Your task to perform on an android device: delete browsing data in the chrome app Image 0: 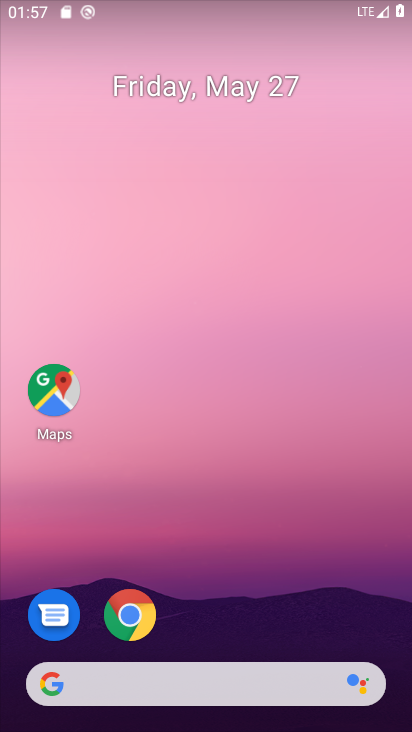
Step 0: drag from (384, 641) to (374, 272)
Your task to perform on an android device: delete browsing data in the chrome app Image 1: 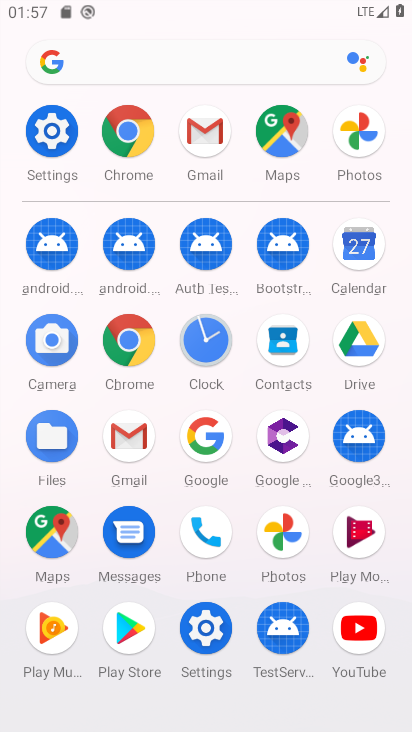
Step 1: click (132, 361)
Your task to perform on an android device: delete browsing data in the chrome app Image 2: 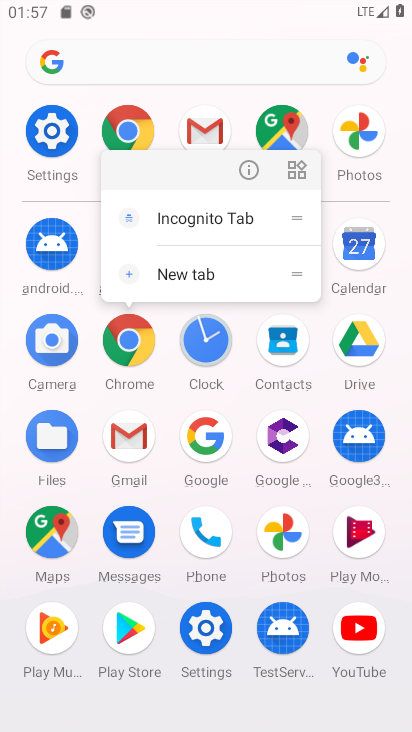
Step 2: click (132, 361)
Your task to perform on an android device: delete browsing data in the chrome app Image 3: 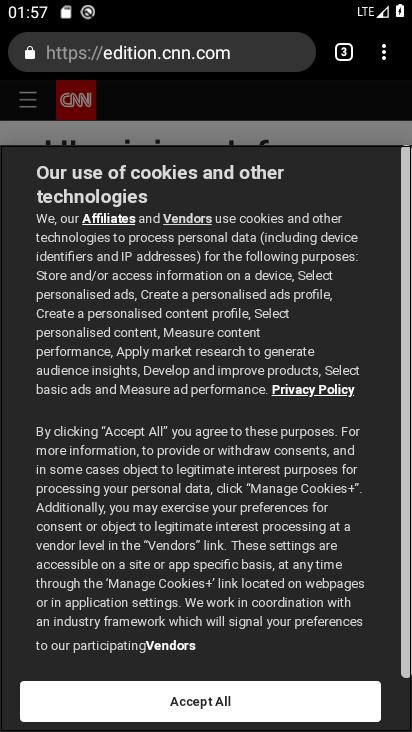
Step 3: click (384, 61)
Your task to perform on an android device: delete browsing data in the chrome app Image 4: 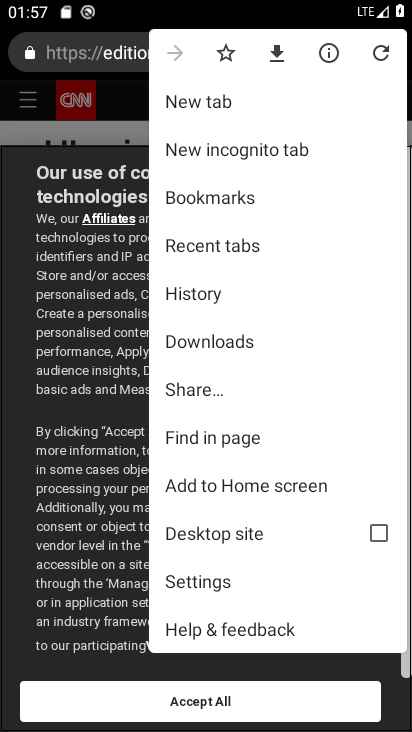
Step 4: click (251, 579)
Your task to perform on an android device: delete browsing data in the chrome app Image 5: 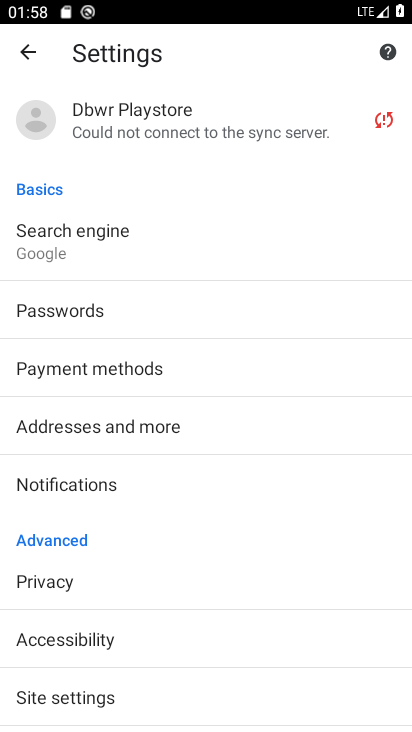
Step 5: drag from (250, 490) to (256, 411)
Your task to perform on an android device: delete browsing data in the chrome app Image 6: 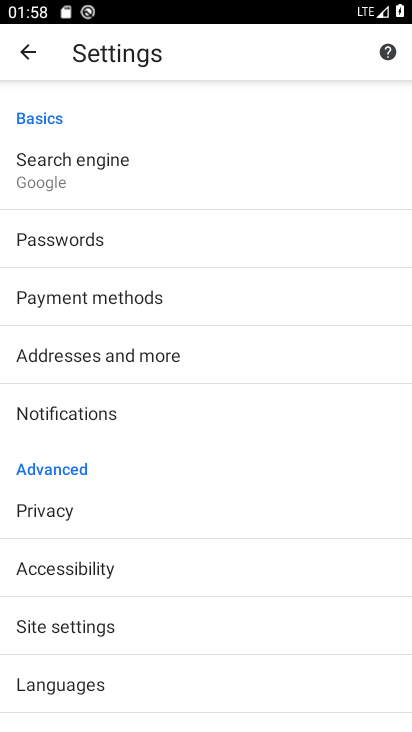
Step 6: drag from (270, 510) to (282, 387)
Your task to perform on an android device: delete browsing data in the chrome app Image 7: 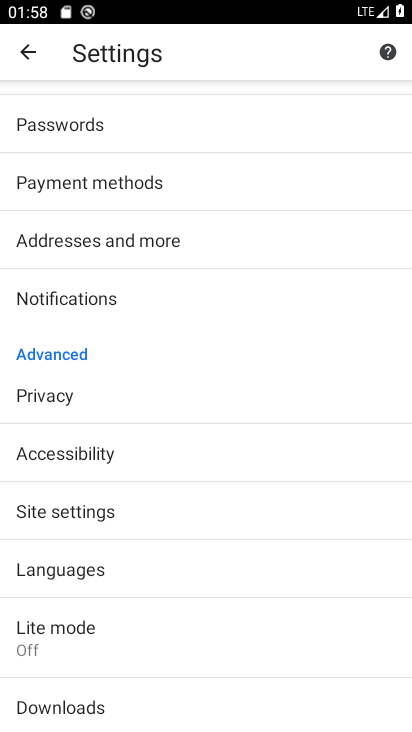
Step 7: drag from (290, 479) to (288, 370)
Your task to perform on an android device: delete browsing data in the chrome app Image 8: 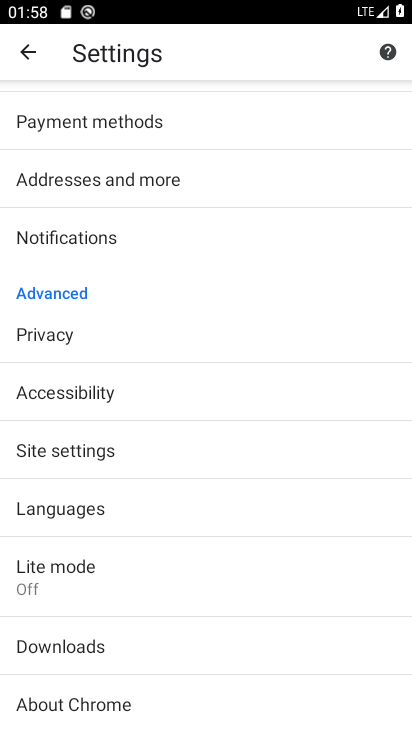
Step 8: drag from (273, 537) to (300, 354)
Your task to perform on an android device: delete browsing data in the chrome app Image 9: 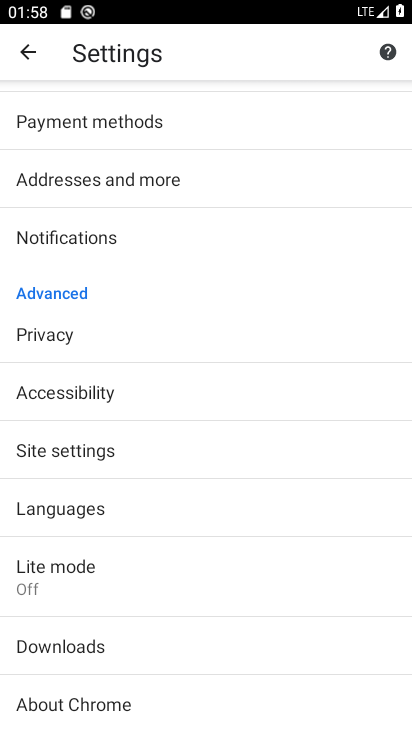
Step 9: click (205, 334)
Your task to perform on an android device: delete browsing data in the chrome app Image 10: 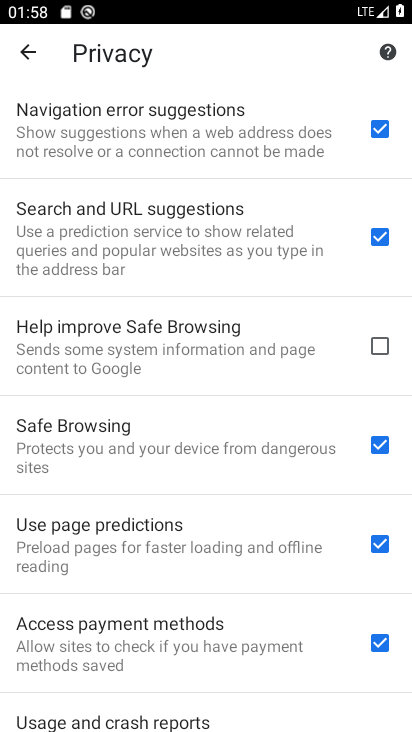
Step 10: drag from (292, 471) to (294, 383)
Your task to perform on an android device: delete browsing data in the chrome app Image 11: 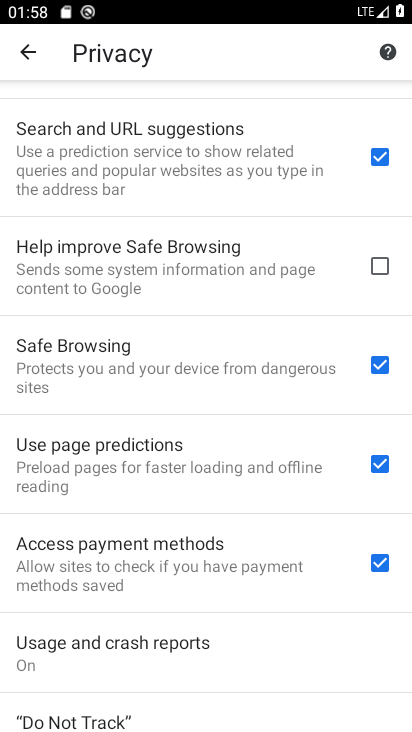
Step 11: drag from (306, 524) to (300, 411)
Your task to perform on an android device: delete browsing data in the chrome app Image 12: 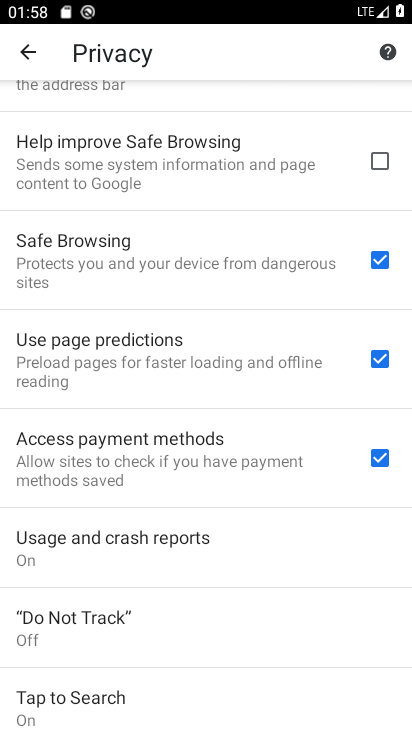
Step 12: drag from (277, 525) to (269, 400)
Your task to perform on an android device: delete browsing data in the chrome app Image 13: 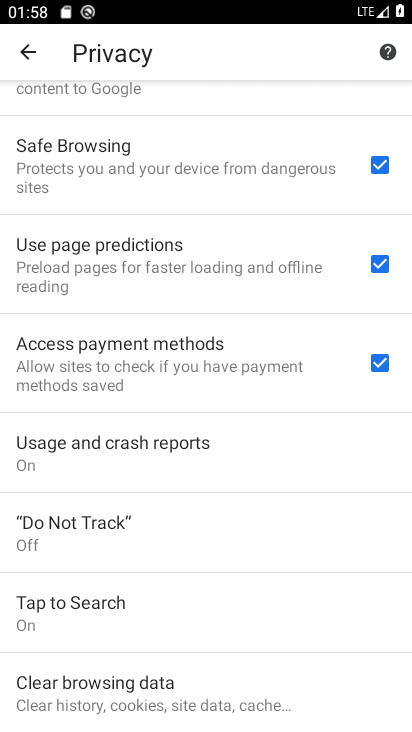
Step 13: drag from (269, 569) to (275, 502)
Your task to perform on an android device: delete browsing data in the chrome app Image 14: 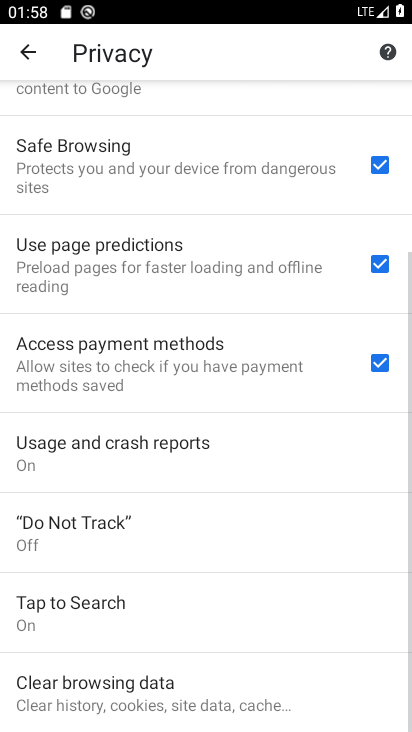
Step 14: click (253, 684)
Your task to perform on an android device: delete browsing data in the chrome app Image 15: 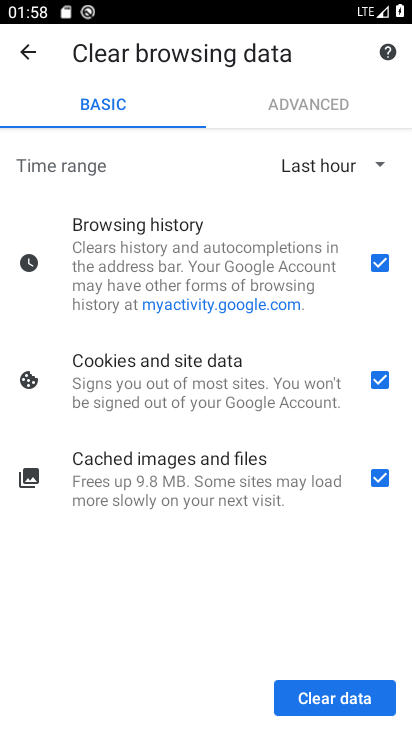
Step 15: click (371, 692)
Your task to perform on an android device: delete browsing data in the chrome app Image 16: 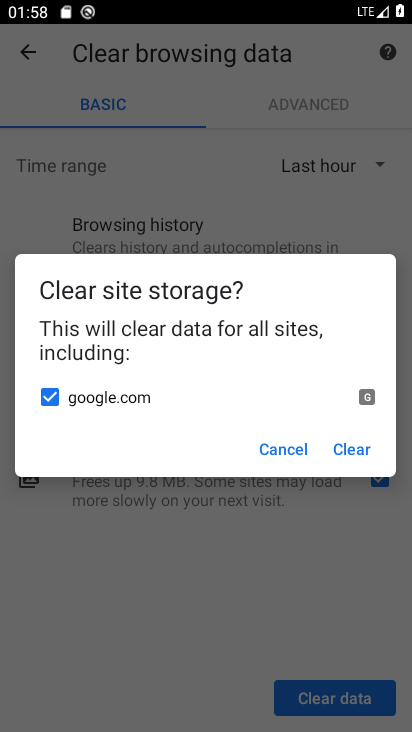
Step 16: click (355, 442)
Your task to perform on an android device: delete browsing data in the chrome app Image 17: 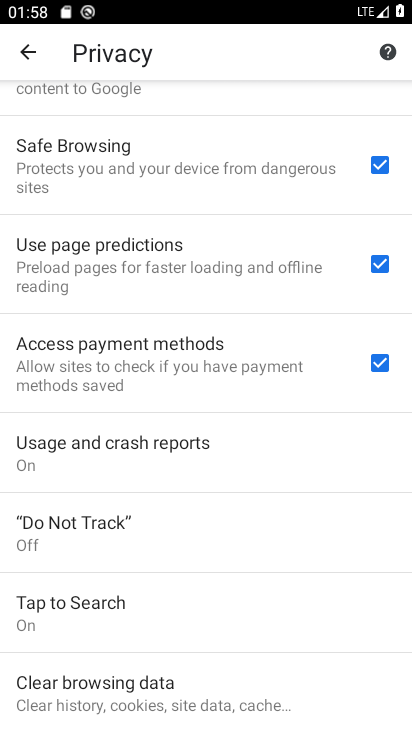
Step 17: task complete